Your task to perform on an android device: Open Google Chrome Image 0: 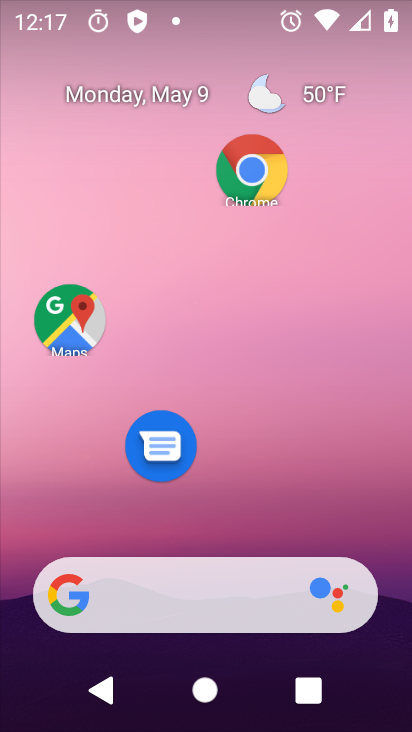
Step 0: click (249, 174)
Your task to perform on an android device: Open Google Chrome Image 1: 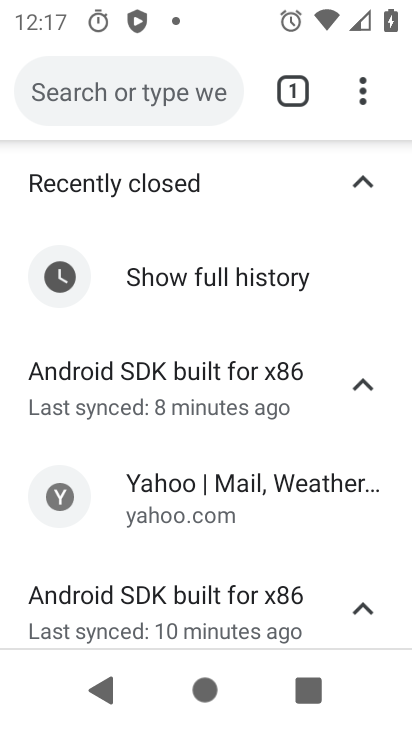
Step 1: task complete